Your task to perform on an android device: What is the news today? Image 0: 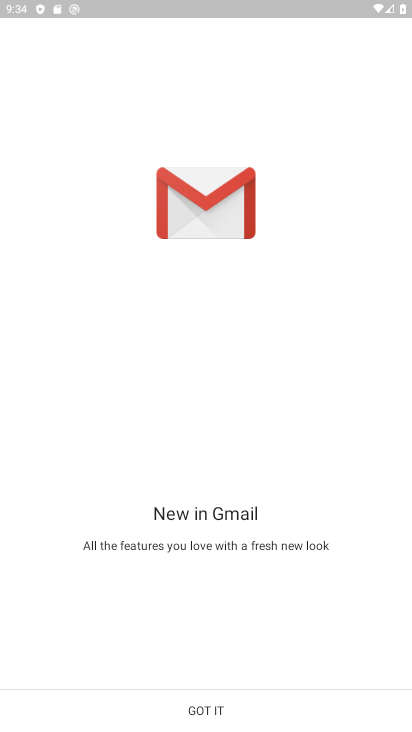
Step 0: press home button
Your task to perform on an android device: What is the news today? Image 1: 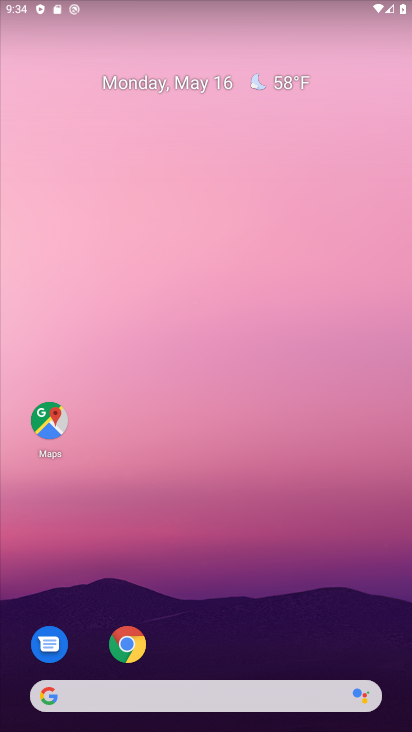
Step 1: task complete